Your task to perform on an android device: Go to Yahoo.com Image 0: 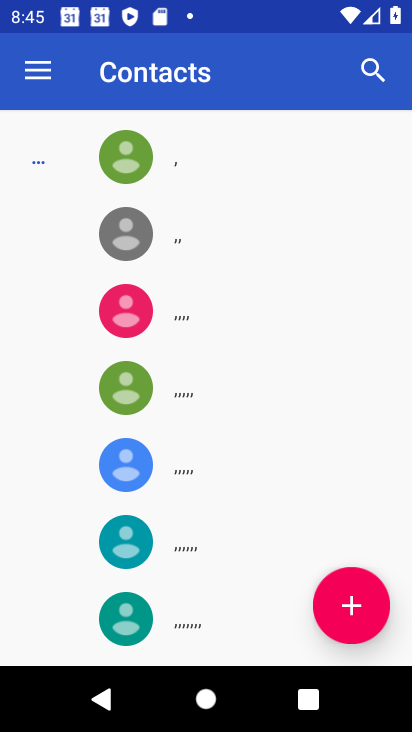
Step 0: press home button
Your task to perform on an android device: Go to Yahoo.com Image 1: 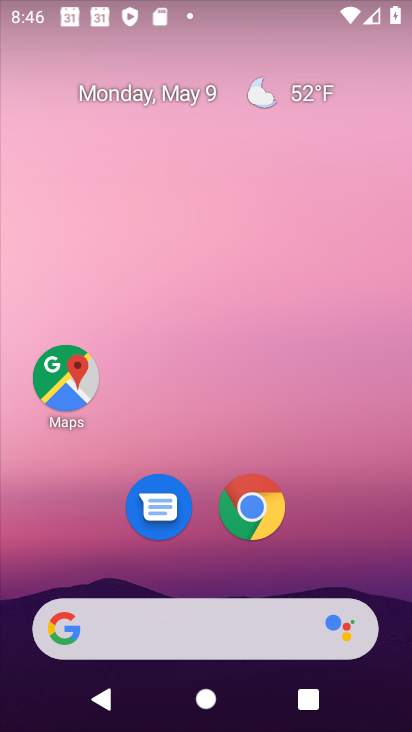
Step 1: click (252, 508)
Your task to perform on an android device: Go to Yahoo.com Image 2: 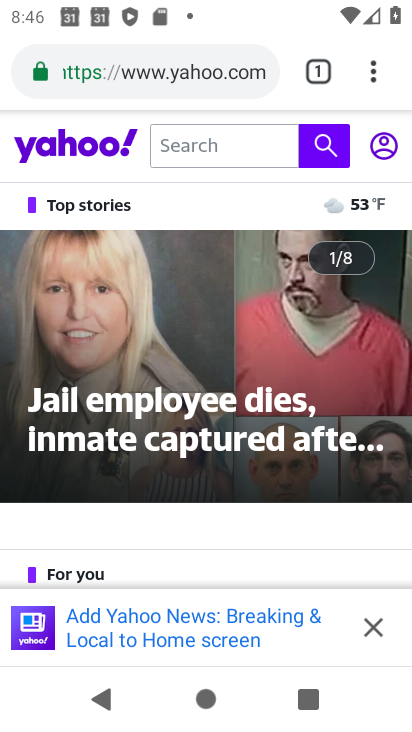
Step 2: task complete